Your task to perform on an android device: move a message to another label in the gmail app Image 0: 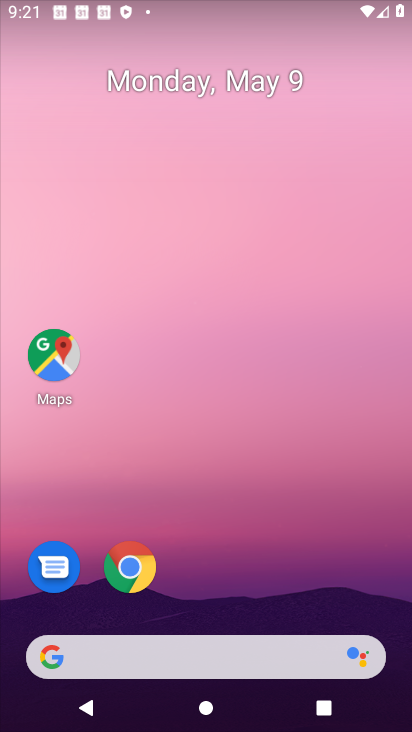
Step 0: drag from (182, 670) to (235, 192)
Your task to perform on an android device: move a message to another label in the gmail app Image 1: 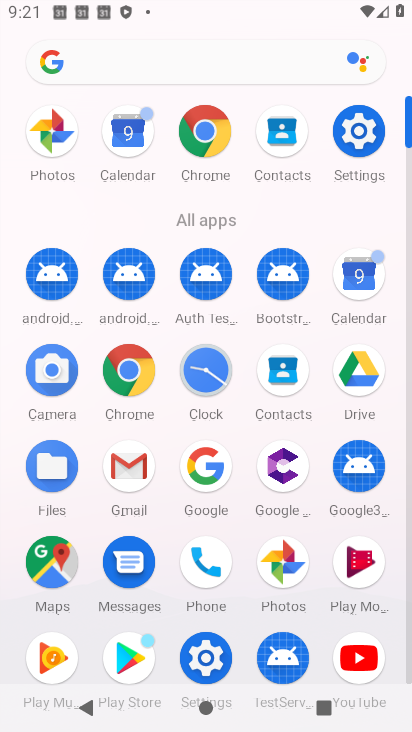
Step 1: click (148, 475)
Your task to perform on an android device: move a message to another label in the gmail app Image 2: 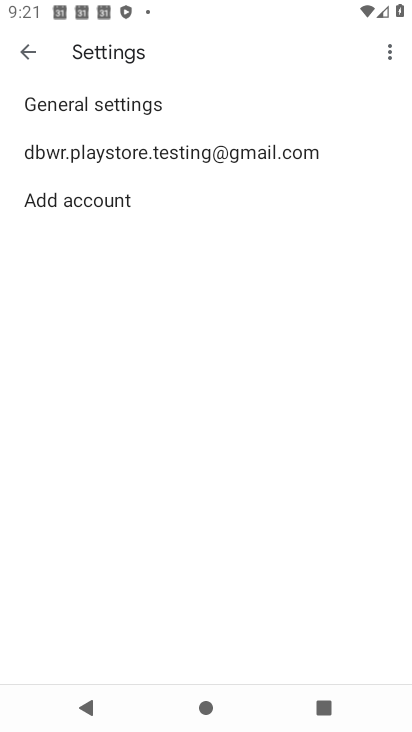
Step 2: click (29, 38)
Your task to perform on an android device: move a message to another label in the gmail app Image 3: 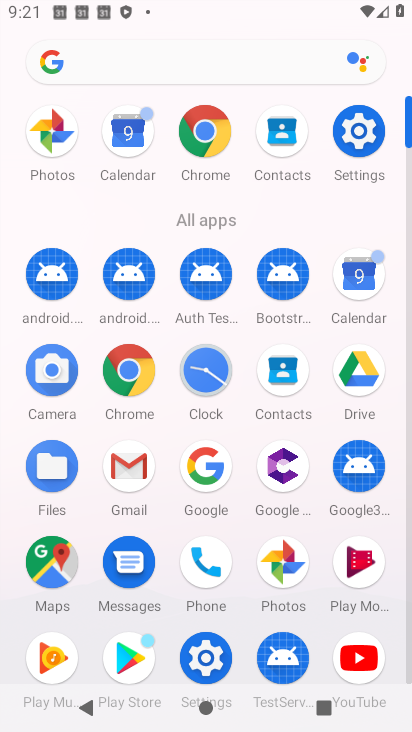
Step 3: click (133, 470)
Your task to perform on an android device: move a message to another label in the gmail app Image 4: 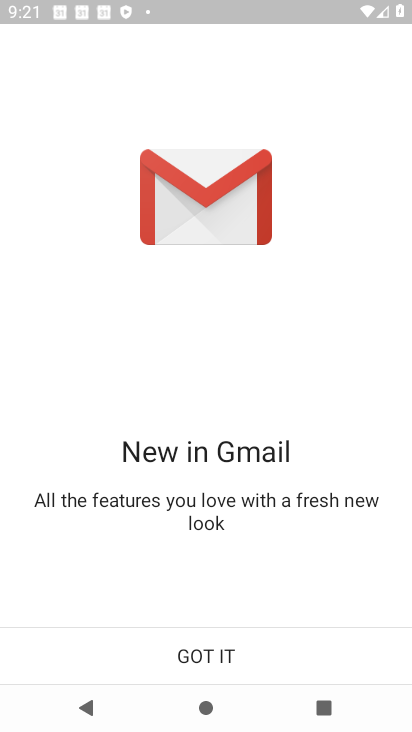
Step 4: click (193, 671)
Your task to perform on an android device: move a message to another label in the gmail app Image 5: 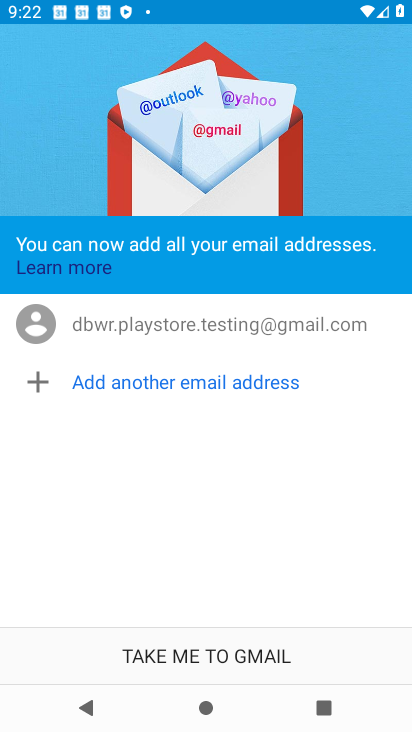
Step 5: click (220, 653)
Your task to perform on an android device: move a message to another label in the gmail app Image 6: 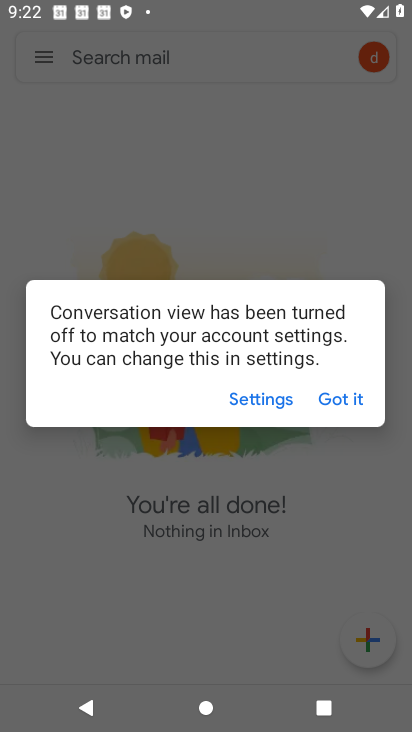
Step 6: click (346, 391)
Your task to perform on an android device: move a message to another label in the gmail app Image 7: 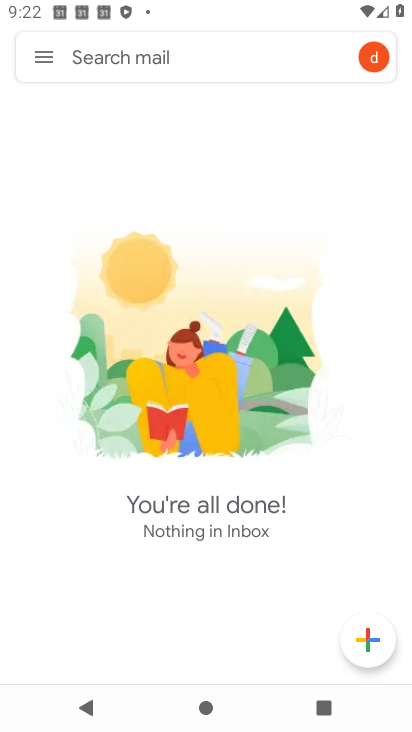
Step 7: task complete